Your task to perform on an android device: star an email in the gmail app Image 0: 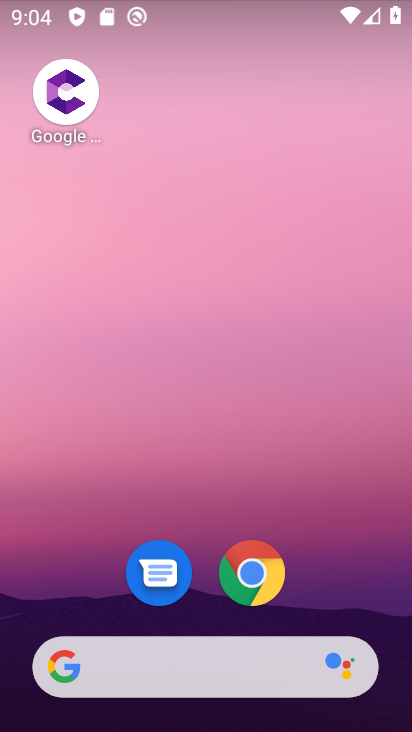
Step 0: drag from (397, 642) to (344, 232)
Your task to perform on an android device: star an email in the gmail app Image 1: 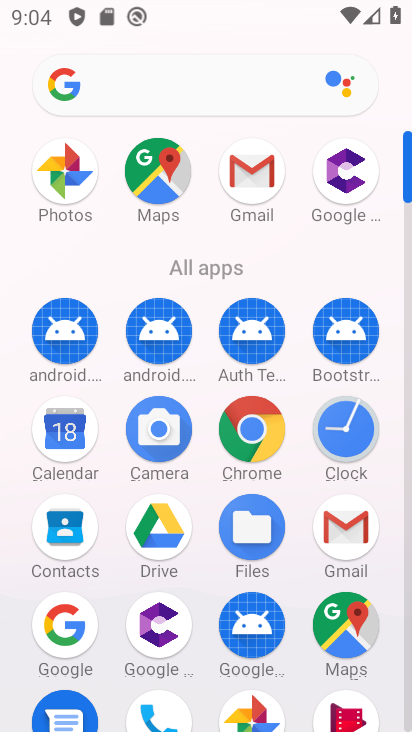
Step 1: click (406, 698)
Your task to perform on an android device: star an email in the gmail app Image 2: 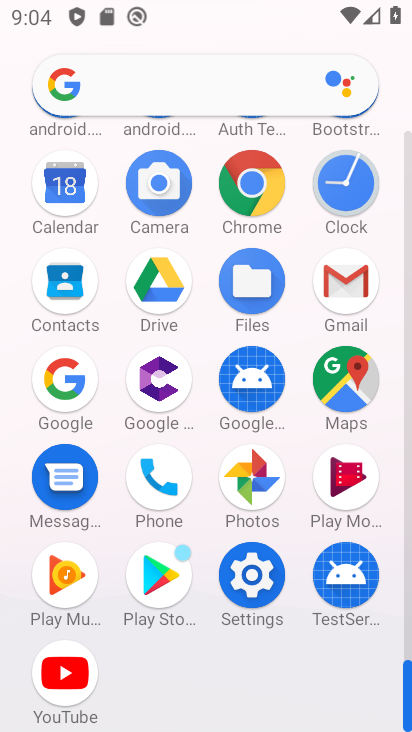
Step 2: click (342, 279)
Your task to perform on an android device: star an email in the gmail app Image 3: 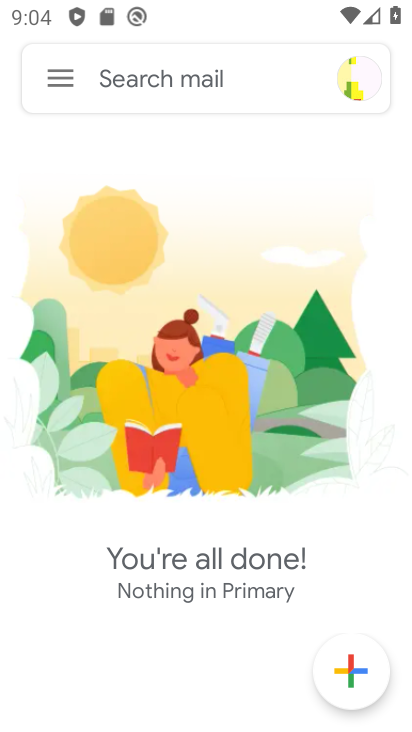
Step 3: click (56, 78)
Your task to perform on an android device: star an email in the gmail app Image 4: 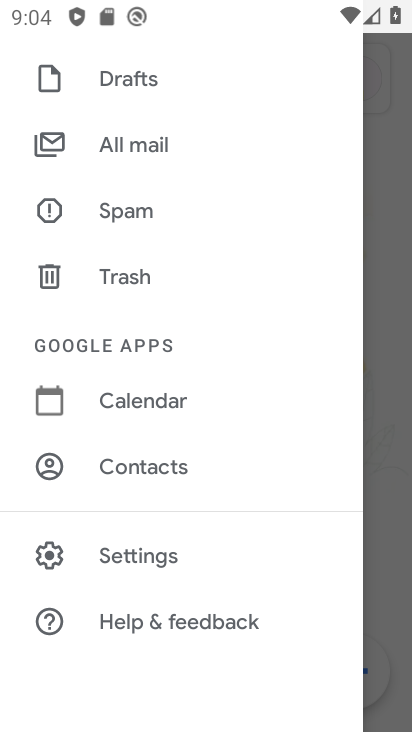
Step 4: click (133, 139)
Your task to perform on an android device: star an email in the gmail app Image 5: 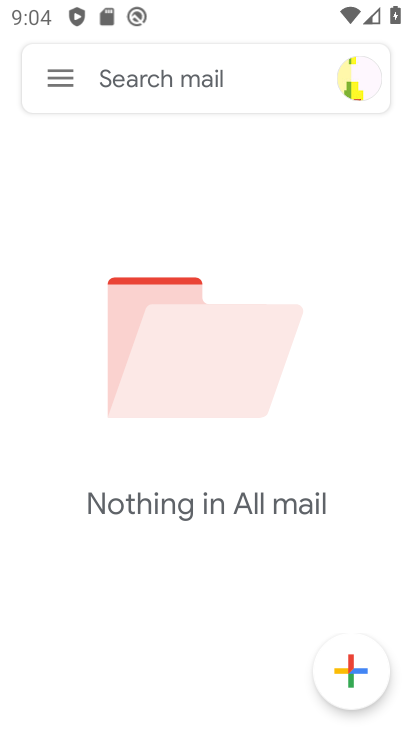
Step 5: task complete